Your task to perform on an android device: stop showing notifications on the lock screen Image 0: 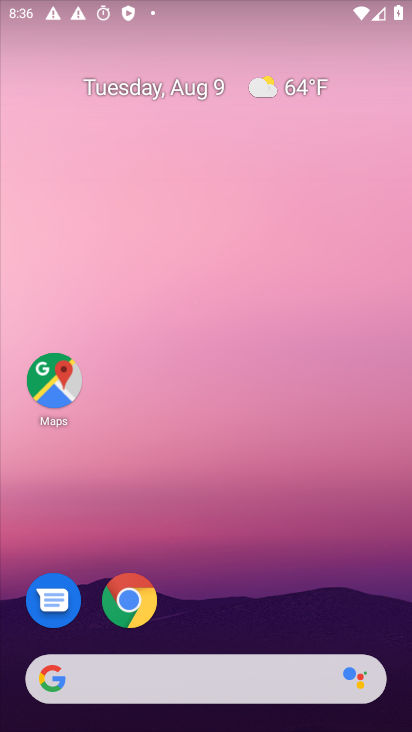
Step 0: click (52, 685)
Your task to perform on an android device: stop showing notifications on the lock screen Image 1: 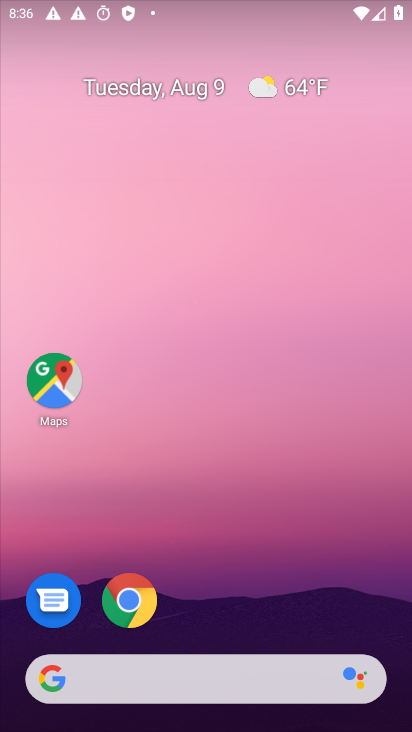
Step 1: press home button
Your task to perform on an android device: stop showing notifications on the lock screen Image 2: 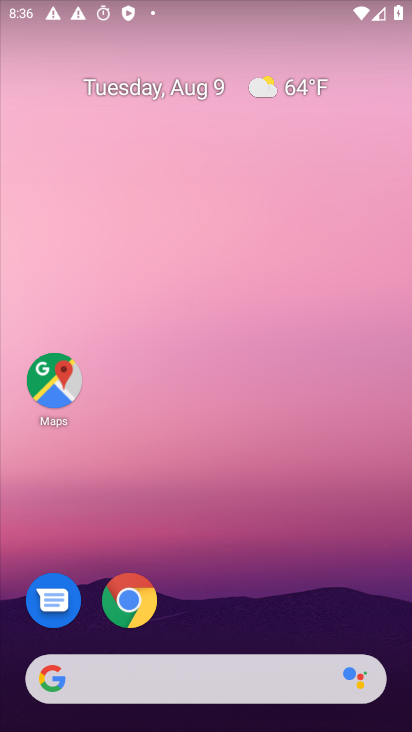
Step 2: drag from (256, 538) to (304, 49)
Your task to perform on an android device: stop showing notifications on the lock screen Image 3: 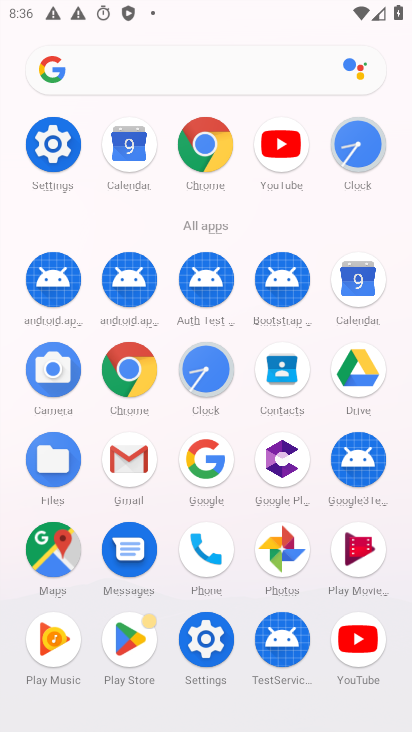
Step 3: click (43, 143)
Your task to perform on an android device: stop showing notifications on the lock screen Image 4: 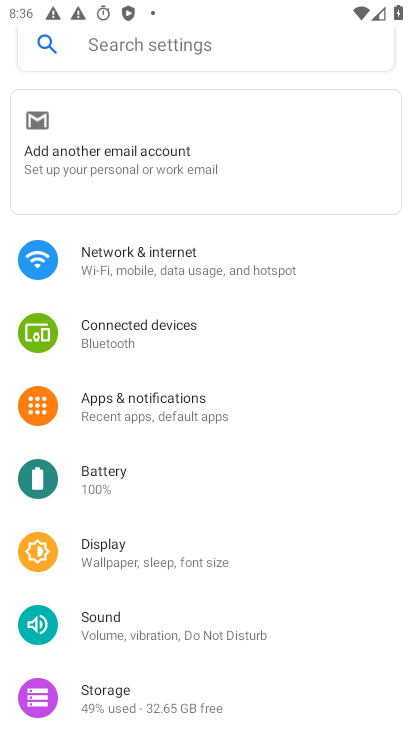
Step 4: click (144, 404)
Your task to perform on an android device: stop showing notifications on the lock screen Image 5: 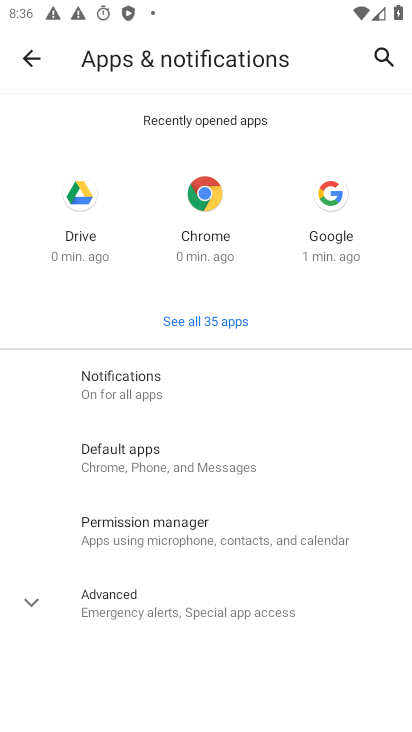
Step 5: click (126, 384)
Your task to perform on an android device: stop showing notifications on the lock screen Image 6: 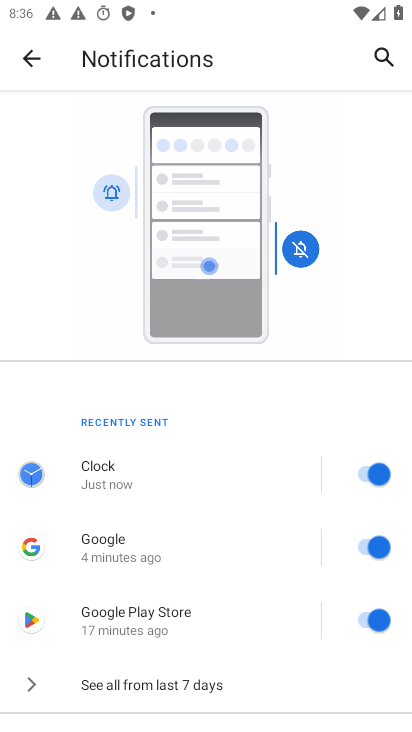
Step 6: drag from (278, 678) to (298, 8)
Your task to perform on an android device: stop showing notifications on the lock screen Image 7: 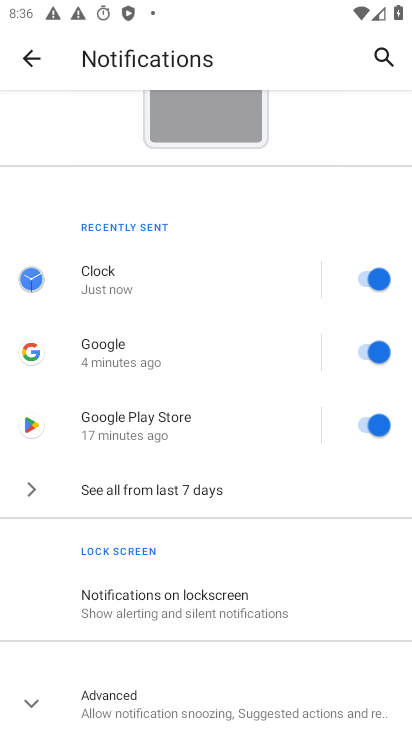
Step 7: click (145, 614)
Your task to perform on an android device: stop showing notifications on the lock screen Image 8: 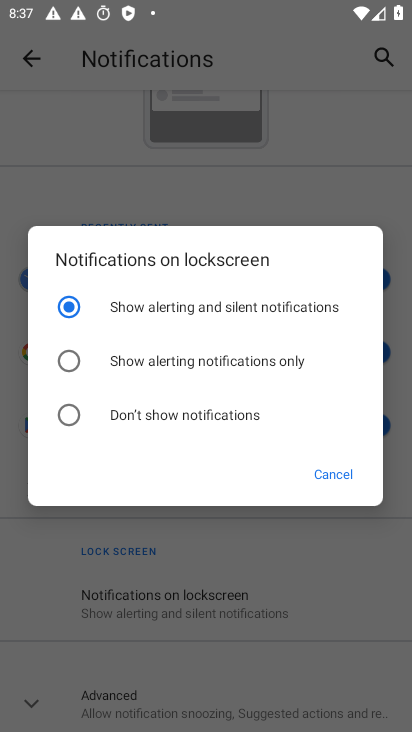
Step 8: click (61, 418)
Your task to perform on an android device: stop showing notifications on the lock screen Image 9: 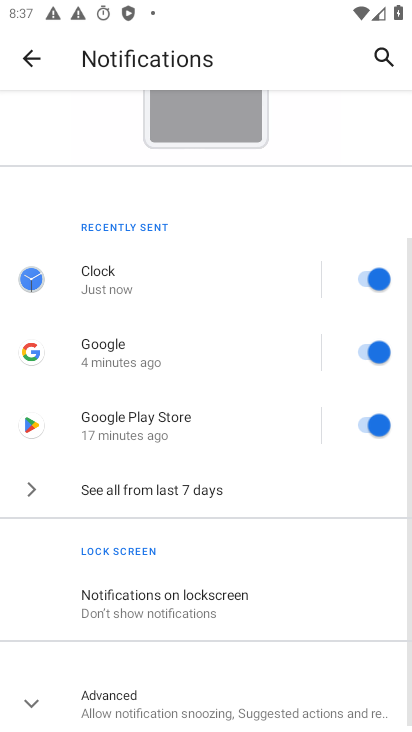
Step 9: task complete